Your task to perform on an android device: make emails show in primary in the gmail app Image 0: 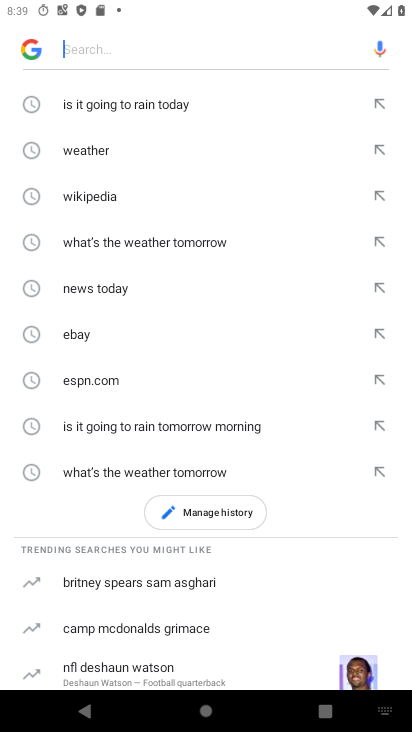
Step 0: press home button
Your task to perform on an android device: make emails show in primary in the gmail app Image 1: 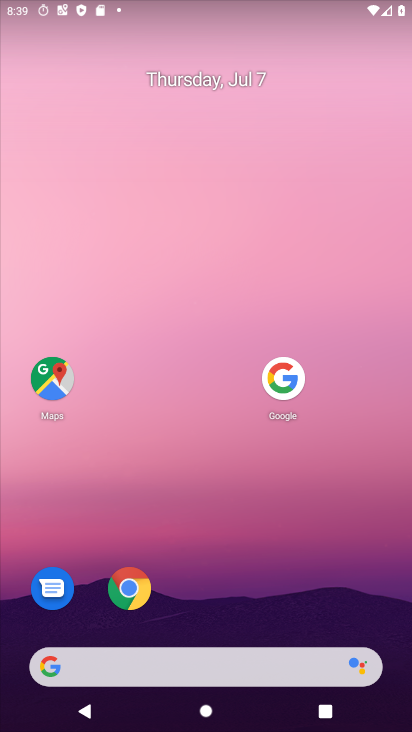
Step 1: drag from (237, 666) to (383, 179)
Your task to perform on an android device: make emails show in primary in the gmail app Image 2: 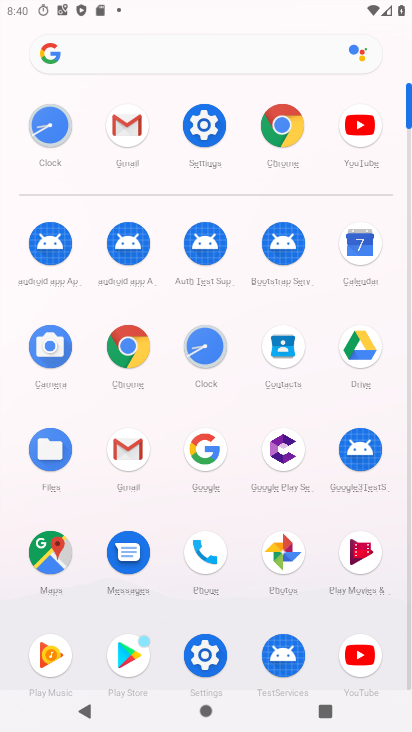
Step 2: click (134, 449)
Your task to perform on an android device: make emails show in primary in the gmail app Image 3: 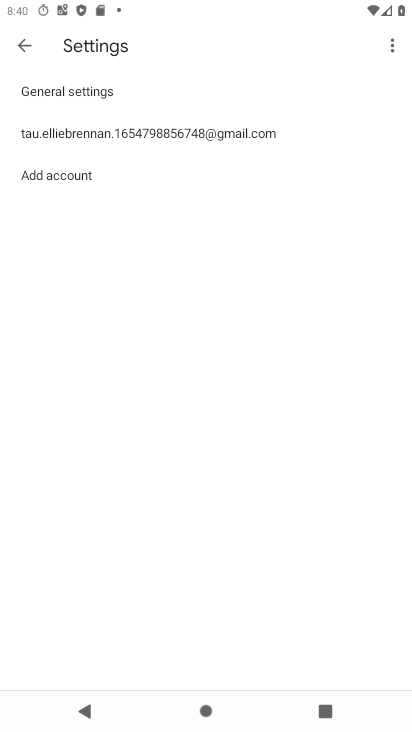
Step 3: click (196, 130)
Your task to perform on an android device: make emails show in primary in the gmail app Image 4: 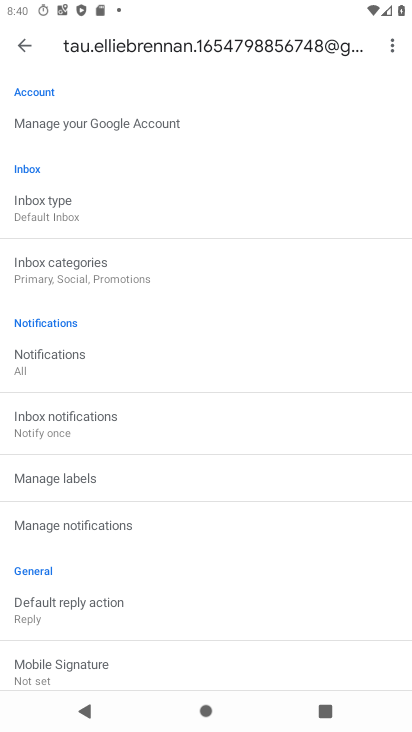
Step 4: click (90, 265)
Your task to perform on an android device: make emails show in primary in the gmail app Image 5: 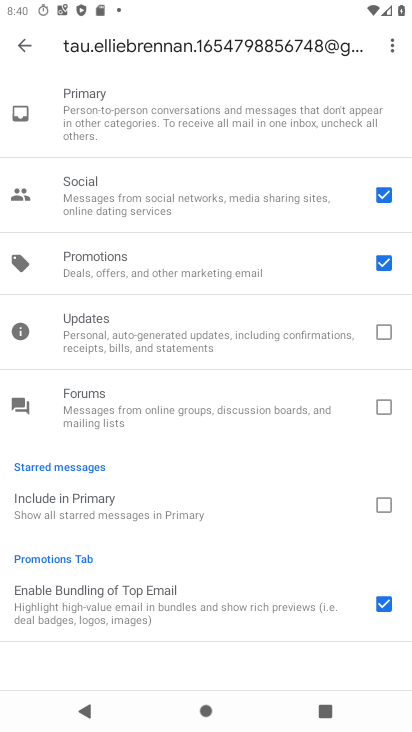
Step 5: click (385, 193)
Your task to perform on an android device: make emails show in primary in the gmail app Image 6: 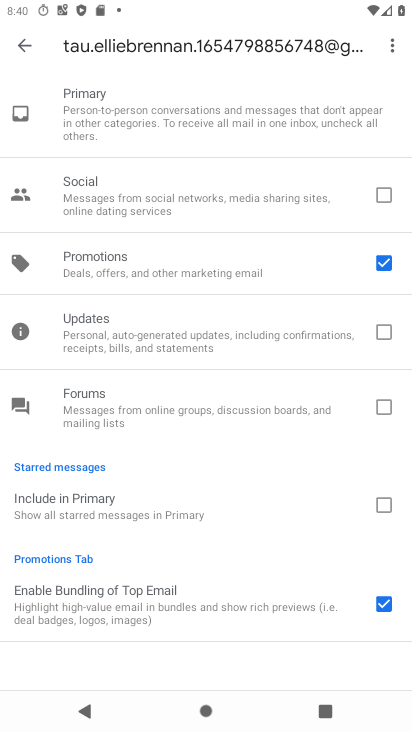
Step 6: click (383, 259)
Your task to perform on an android device: make emails show in primary in the gmail app Image 7: 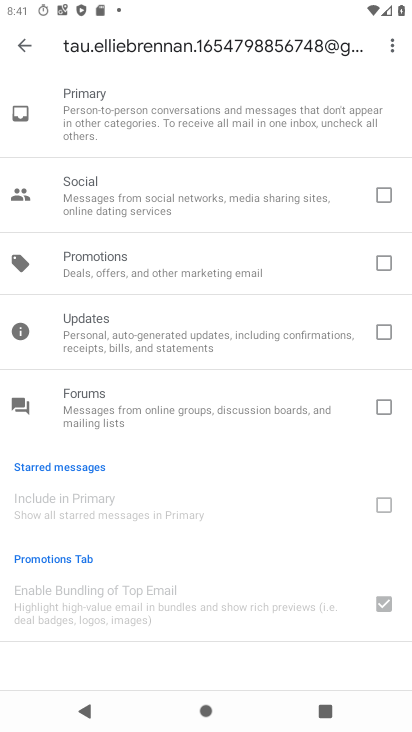
Step 7: click (25, 42)
Your task to perform on an android device: make emails show in primary in the gmail app Image 8: 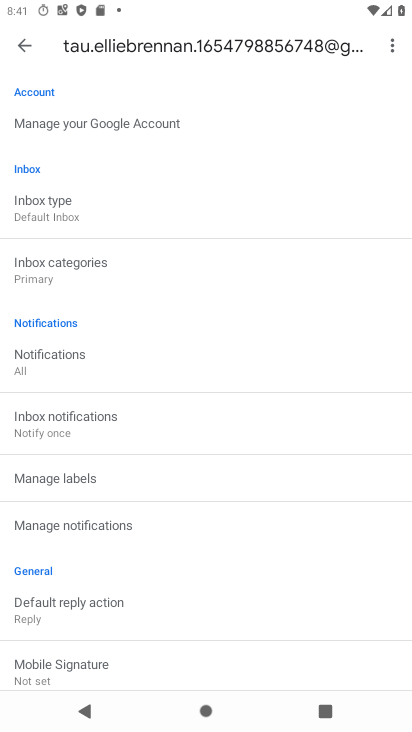
Step 8: task complete